Your task to perform on an android device: Open sound settings Image 0: 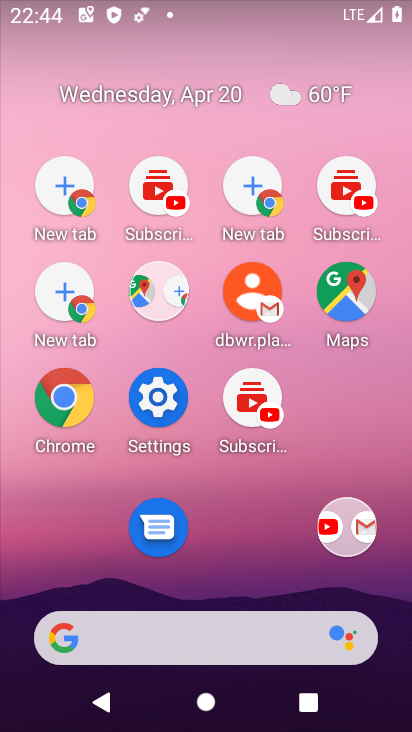
Step 0: drag from (230, 553) to (131, 332)
Your task to perform on an android device: Open sound settings Image 1: 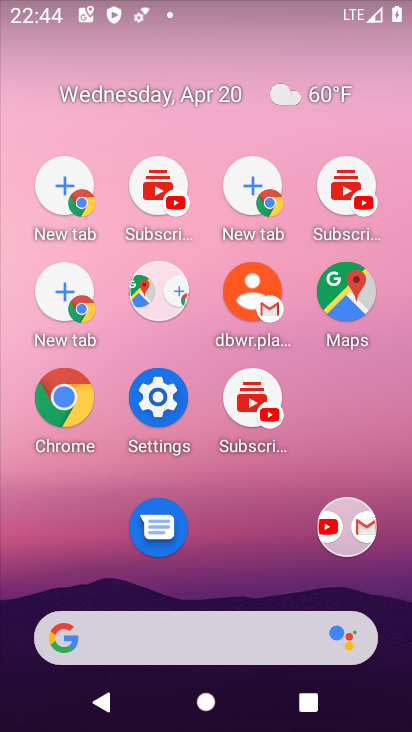
Step 1: drag from (185, 332) to (172, 241)
Your task to perform on an android device: Open sound settings Image 2: 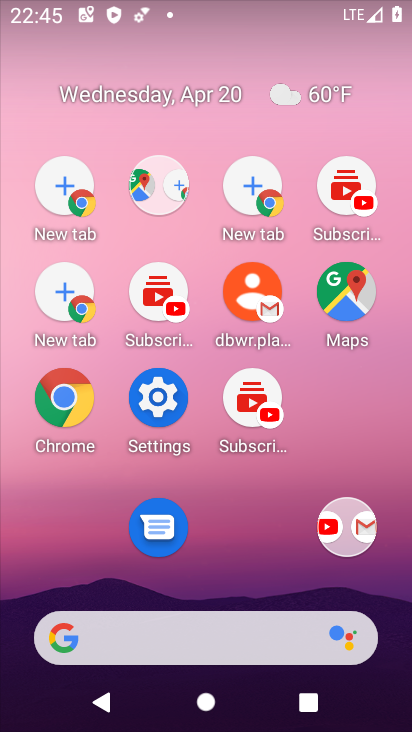
Step 2: drag from (244, 226) to (173, 169)
Your task to perform on an android device: Open sound settings Image 3: 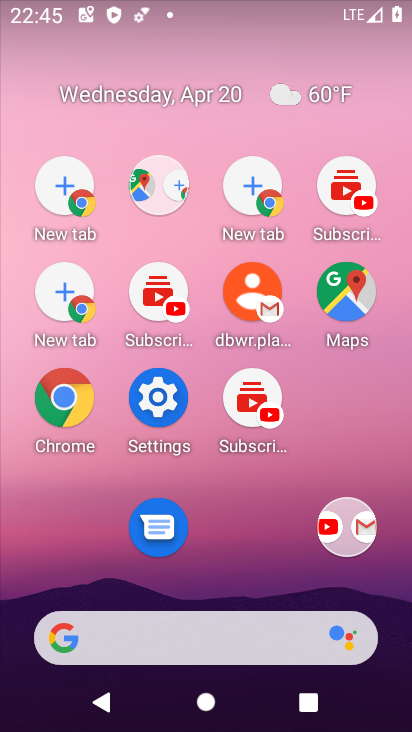
Step 3: drag from (266, 433) to (267, 224)
Your task to perform on an android device: Open sound settings Image 4: 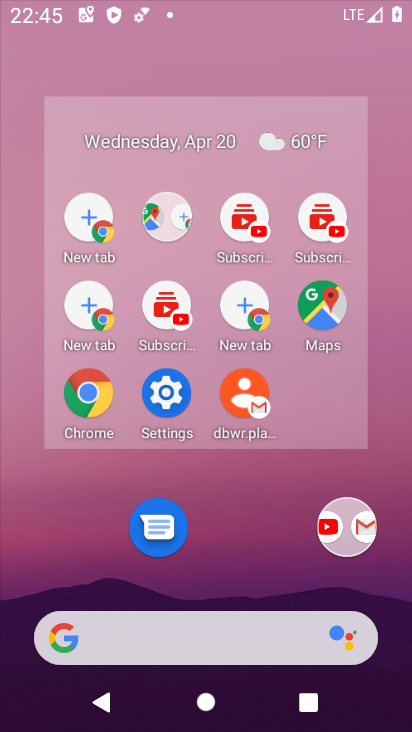
Step 4: drag from (283, 503) to (229, 131)
Your task to perform on an android device: Open sound settings Image 5: 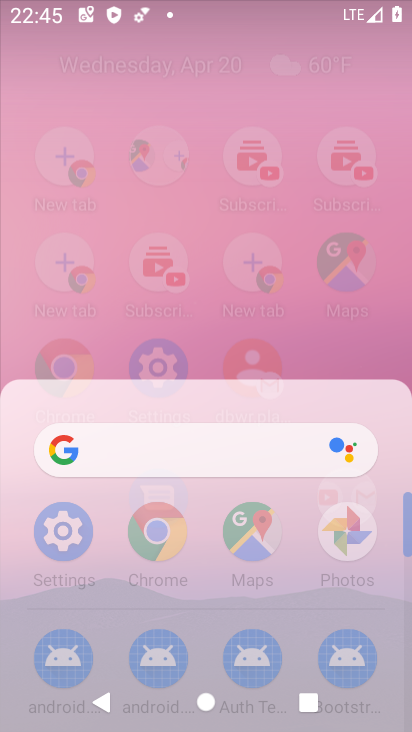
Step 5: drag from (254, 139) to (292, 168)
Your task to perform on an android device: Open sound settings Image 6: 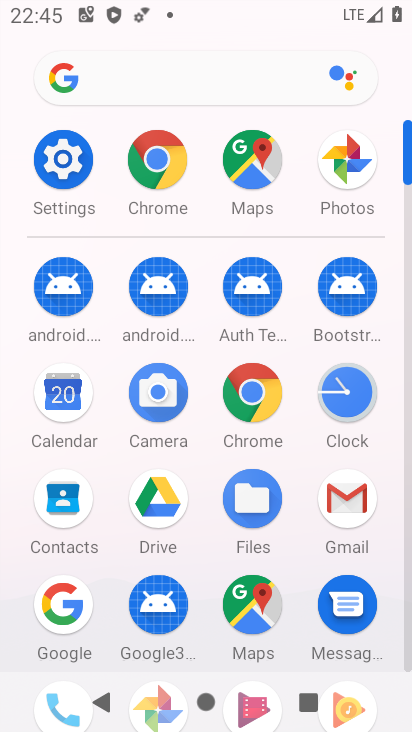
Step 6: drag from (204, 328) to (176, 253)
Your task to perform on an android device: Open sound settings Image 7: 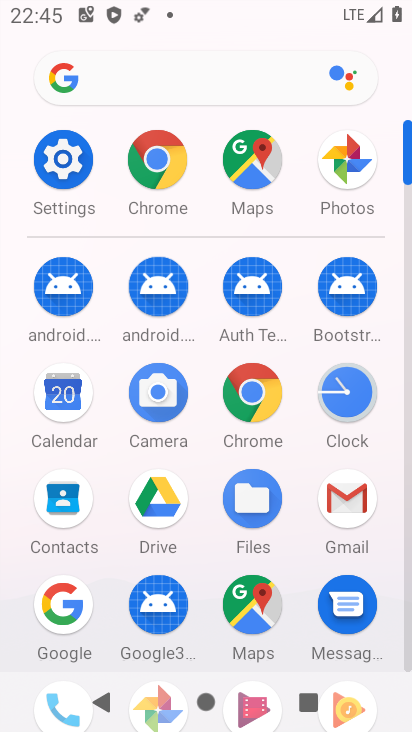
Step 7: drag from (171, 352) to (143, 149)
Your task to perform on an android device: Open sound settings Image 8: 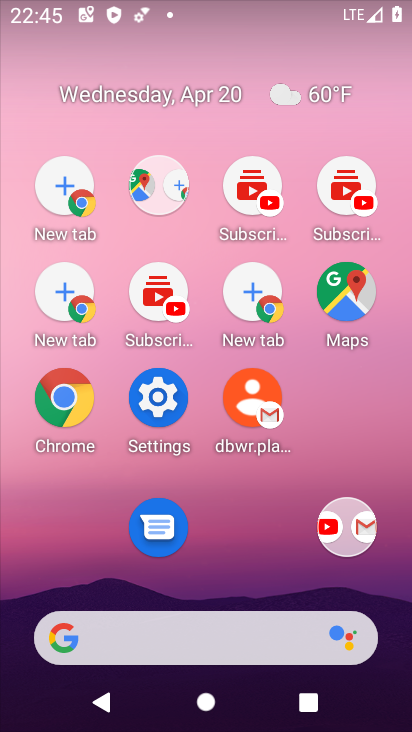
Step 8: click (151, 396)
Your task to perform on an android device: Open sound settings Image 9: 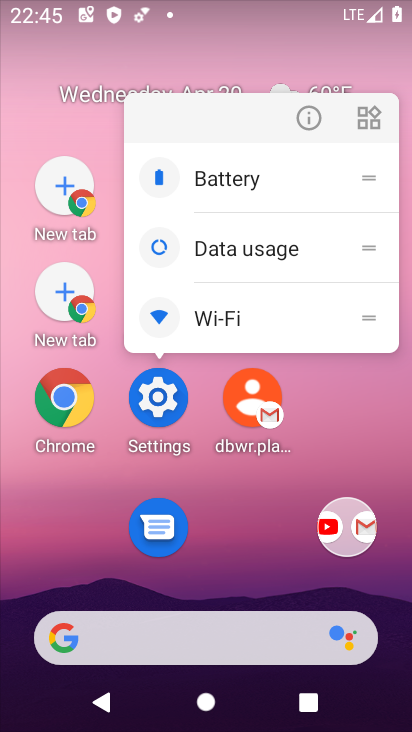
Step 9: click (154, 416)
Your task to perform on an android device: Open sound settings Image 10: 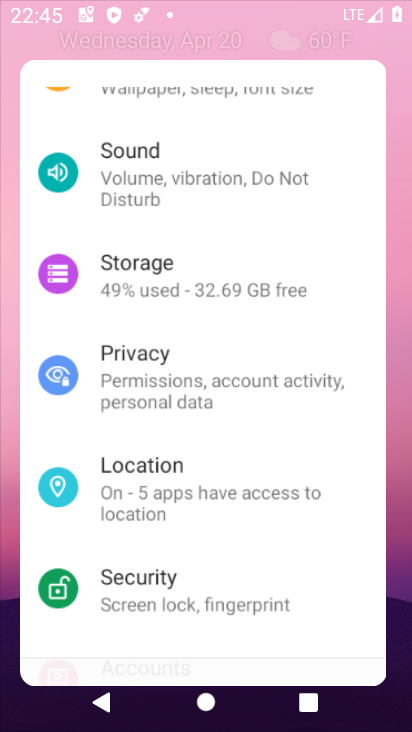
Step 10: click (154, 416)
Your task to perform on an android device: Open sound settings Image 11: 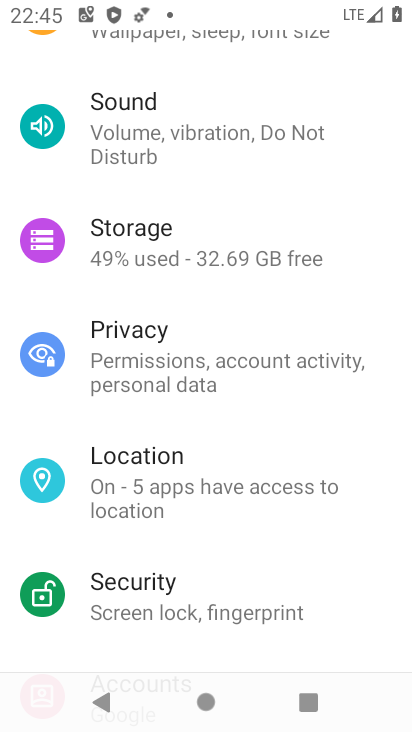
Step 11: click (123, 110)
Your task to perform on an android device: Open sound settings Image 12: 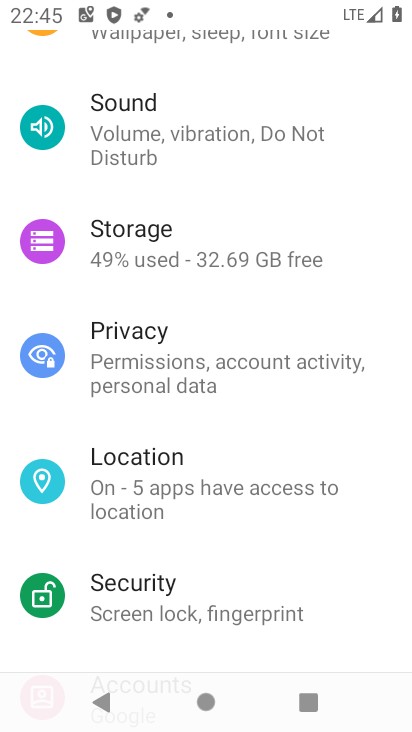
Step 12: click (131, 140)
Your task to perform on an android device: Open sound settings Image 13: 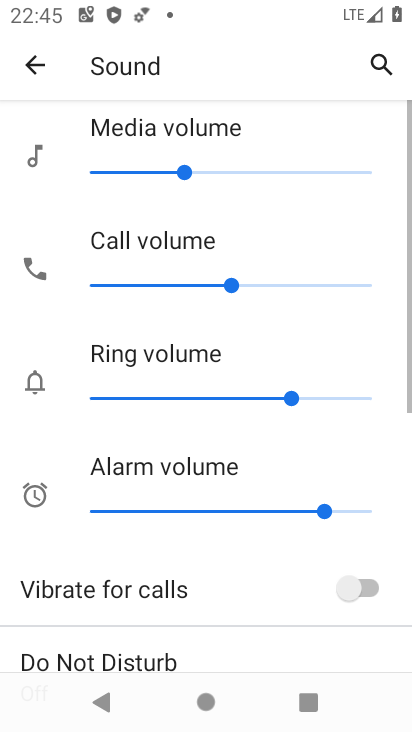
Step 13: click (142, 132)
Your task to perform on an android device: Open sound settings Image 14: 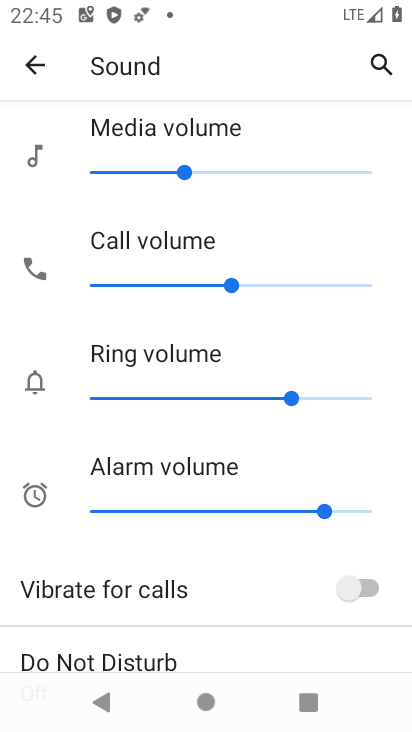
Step 14: task complete